Your task to perform on an android device: Open Google Image 0: 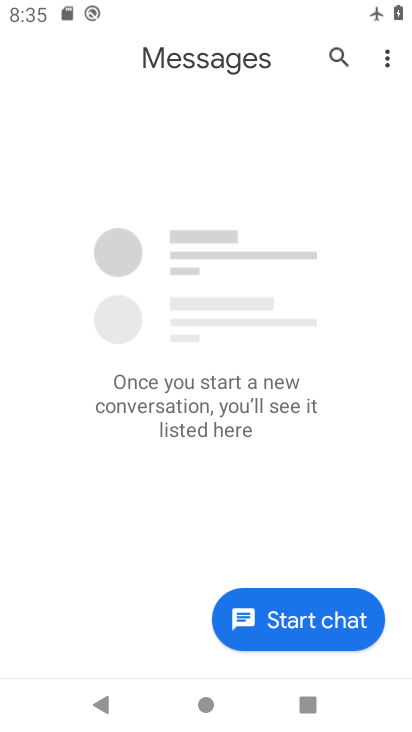
Step 0: press back button
Your task to perform on an android device: Open Google Image 1: 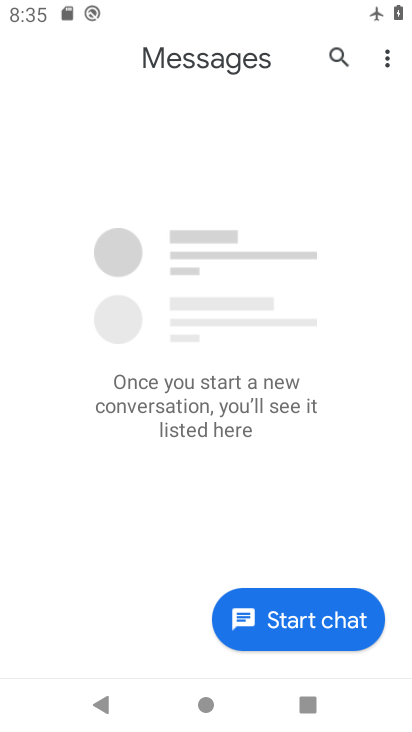
Step 1: press back button
Your task to perform on an android device: Open Google Image 2: 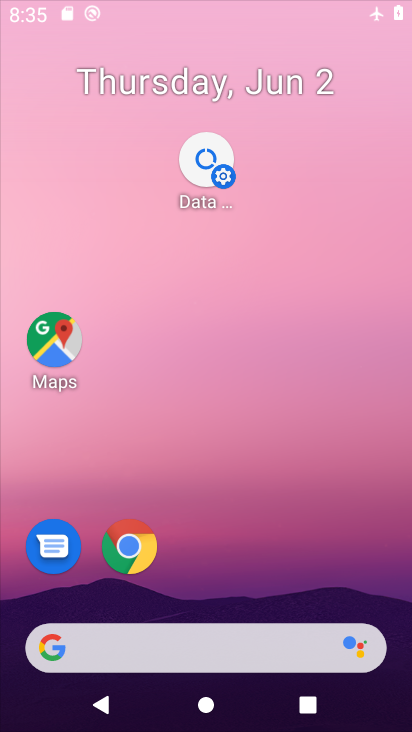
Step 2: press back button
Your task to perform on an android device: Open Google Image 3: 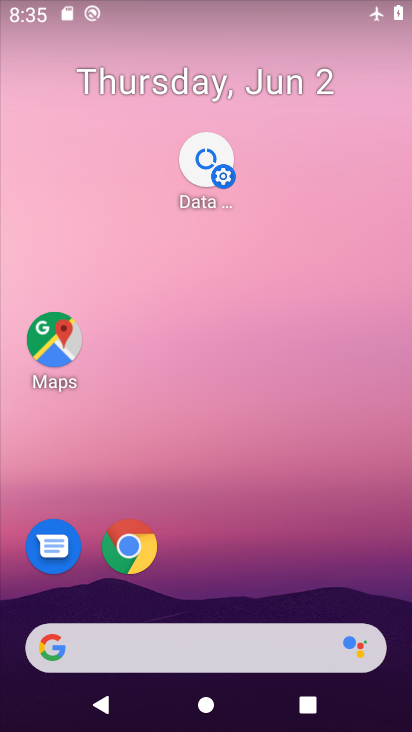
Step 3: press home button
Your task to perform on an android device: Open Google Image 4: 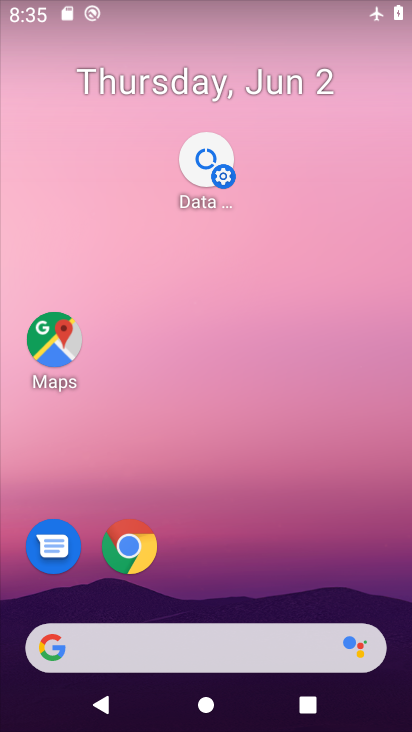
Step 4: drag from (266, 694) to (166, 157)
Your task to perform on an android device: Open Google Image 5: 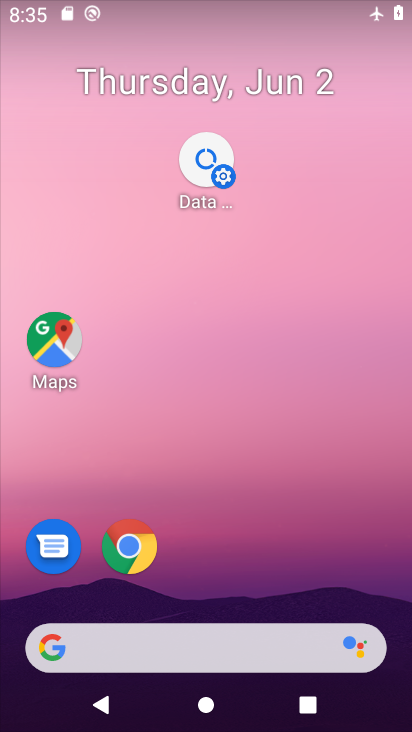
Step 5: drag from (257, 640) to (212, 207)
Your task to perform on an android device: Open Google Image 6: 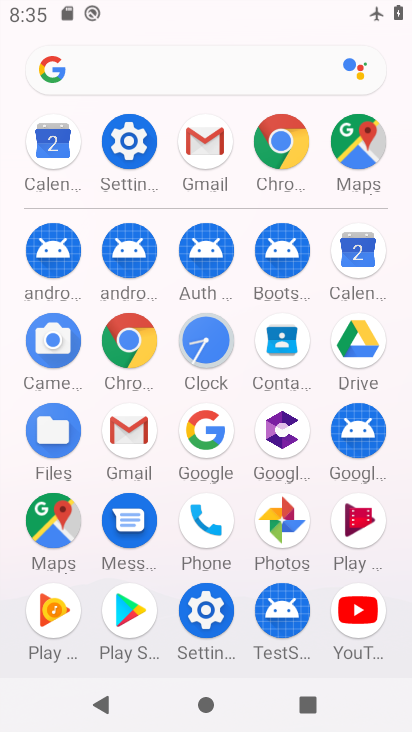
Step 6: drag from (235, 517) to (233, 102)
Your task to perform on an android device: Open Google Image 7: 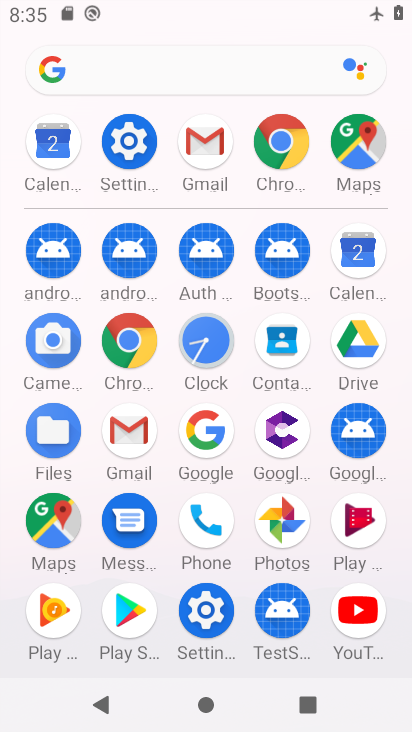
Step 7: click (207, 440)
Your task to perform on an android device: Open Google Image 8: 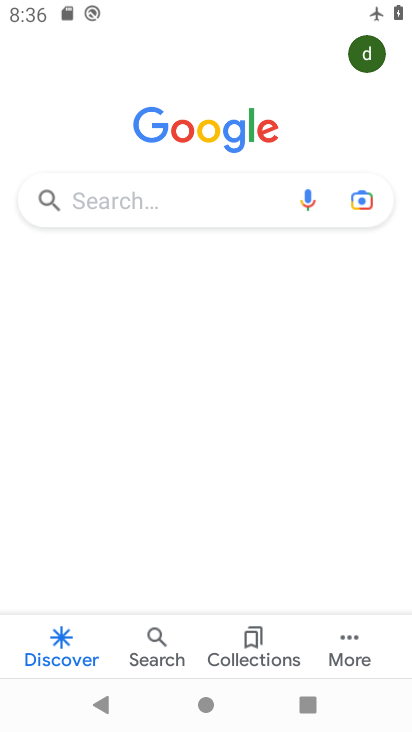
Step 8: task complete